Your task to perform on an android device: stop showing notifications on the lock screen Image 0: 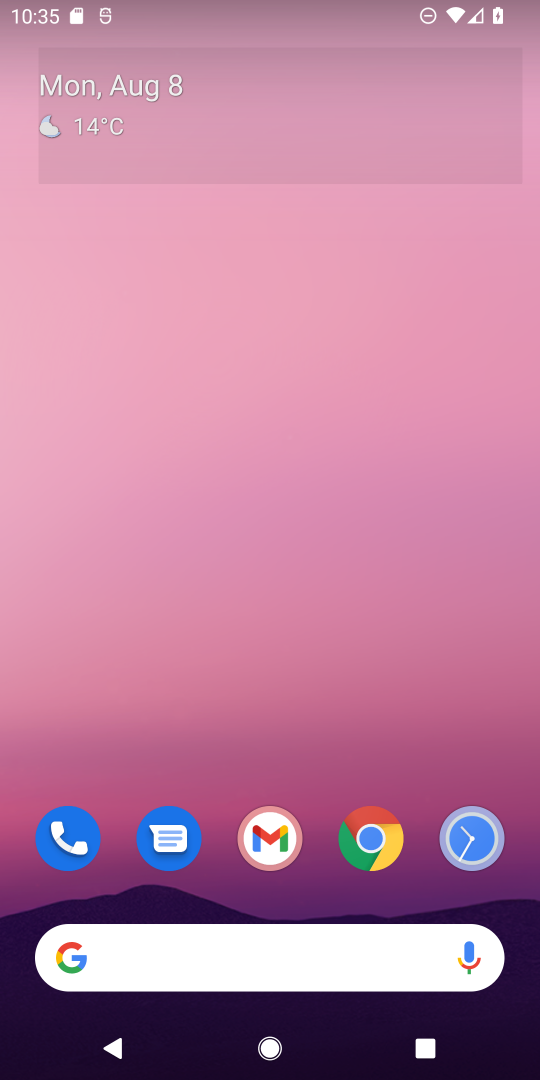
Step 0: press home button
Your task to perform on an android device: stop showing notifications on the lock screen Image 1: 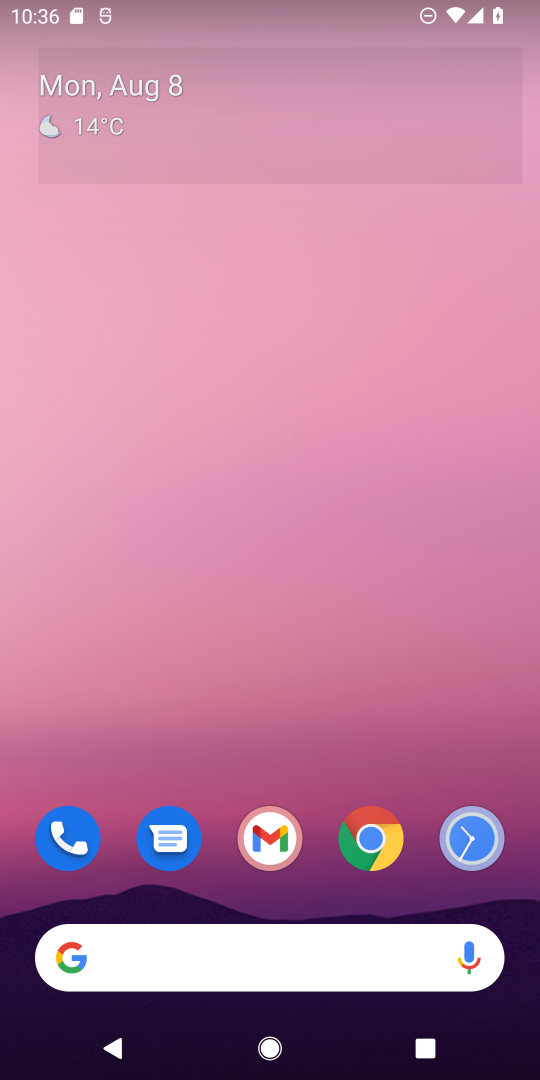
Step 1: drag from (220, 900) to (484, 106)
Your task to perform on an android device: stop showing notifications on the lock screen Image 2: 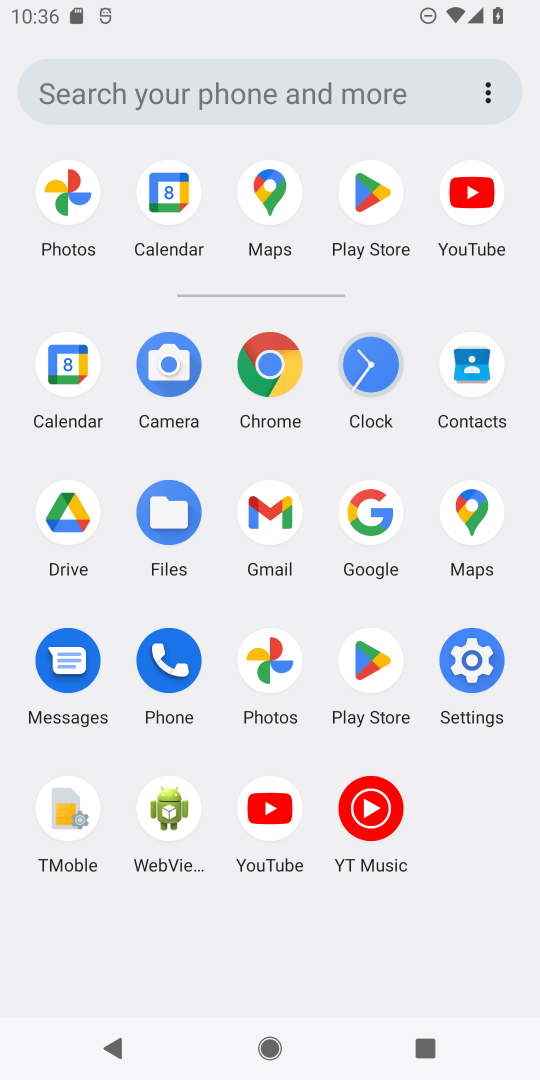
Step 2: click (483, 662)
Your task to perform on an android device: stop showing notifications on the lock screen Image 3: 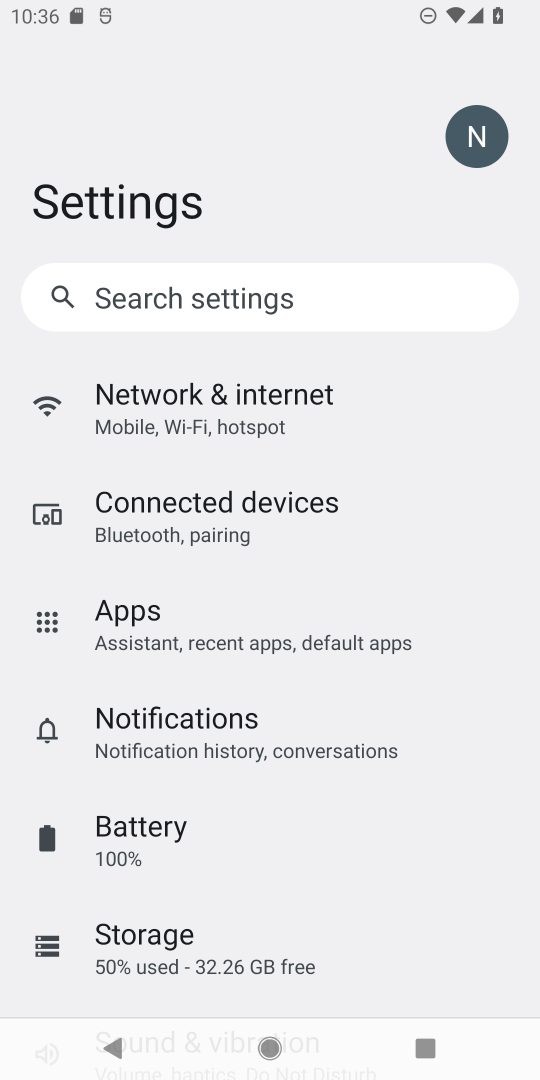
Step 3: drag from (427, 878) to (390, 231)
Your task to perform on an android device: stop showing notifications on the lock screen Image 4: 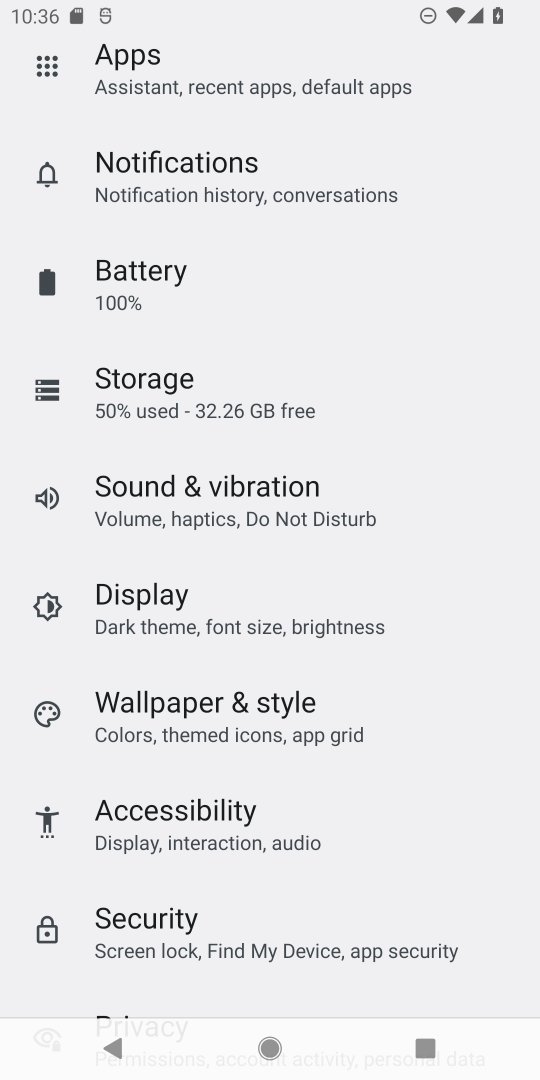
Step 4: click (198, 184)
Your task to perform on an android device: stop showing notifications on the lock screen Image 5: 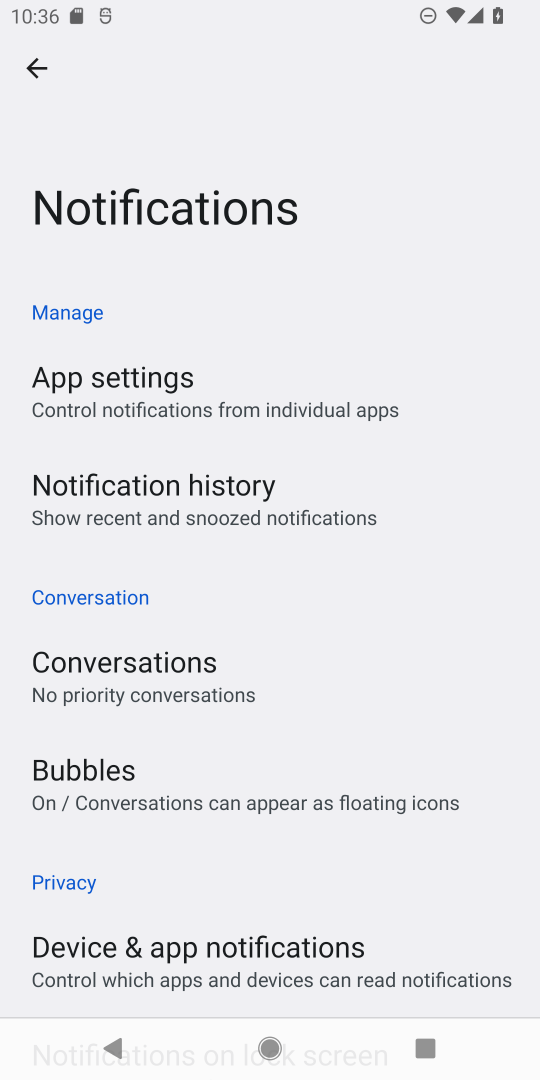
Step 5: drag from (408, 867) to (395, 234)
Your task to perform on an android device: stop showing notifications on the lock screen Image 6: 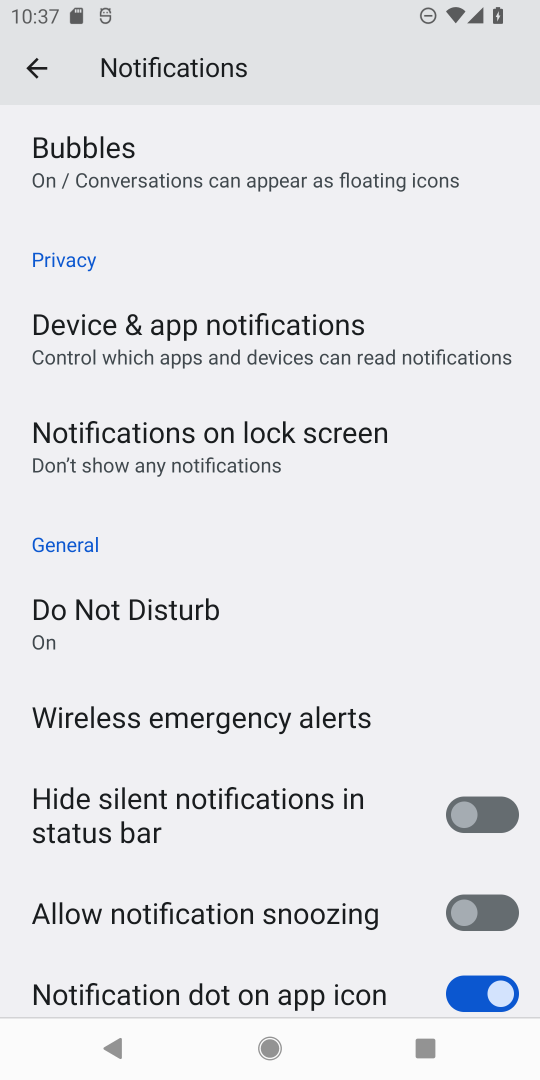
Step 6: click (194, 453)
Your task to perform on an android device: stop showing notifications on the lock screen Image 7: 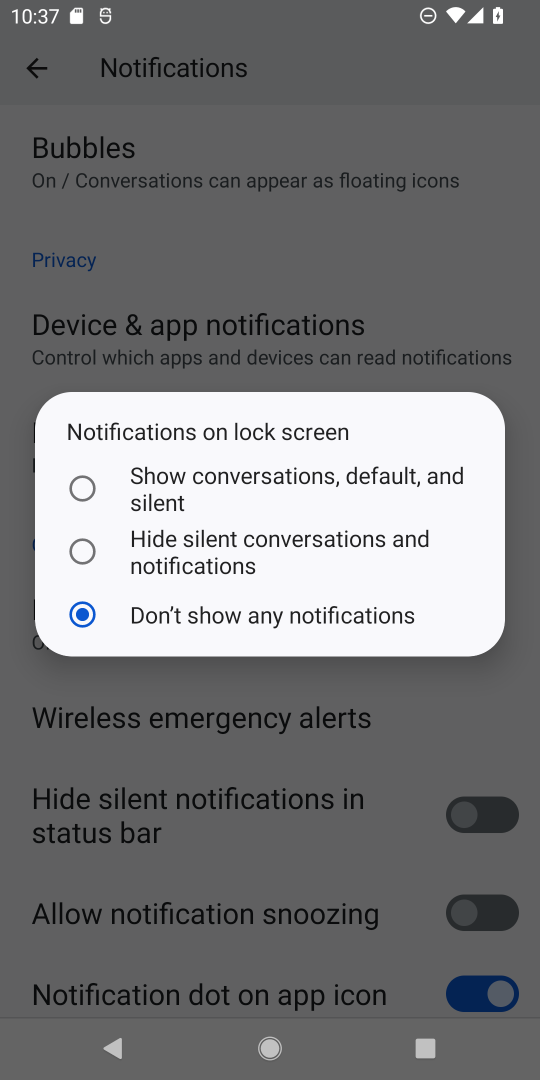
Step 7: task complete